Your task to perform on an android device: Go to internet settings Image 0: 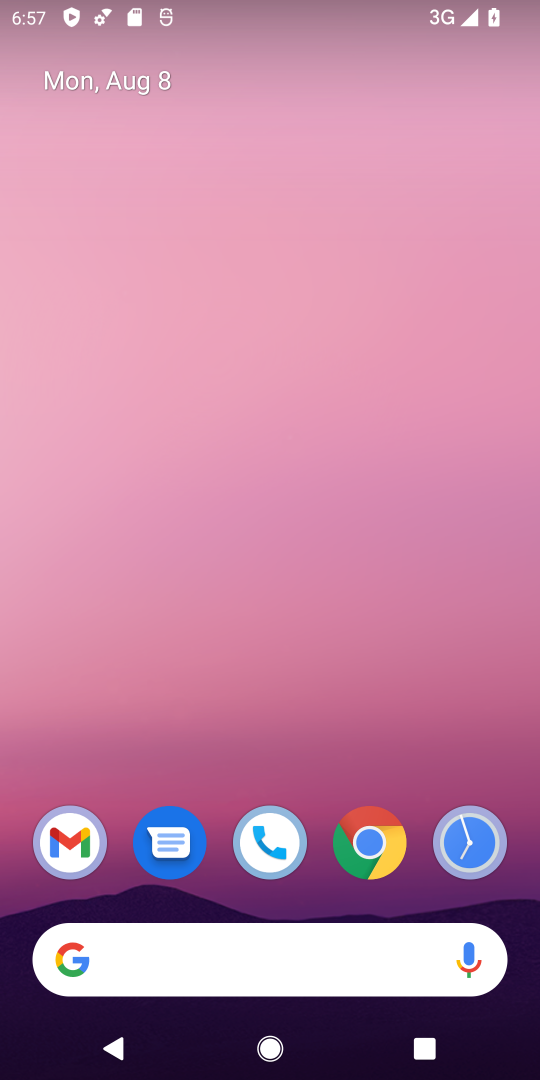
Step 0: drag from (273, 943) to (167, 42)
Your task to perform on an android device: Go to internet settings Image 1: 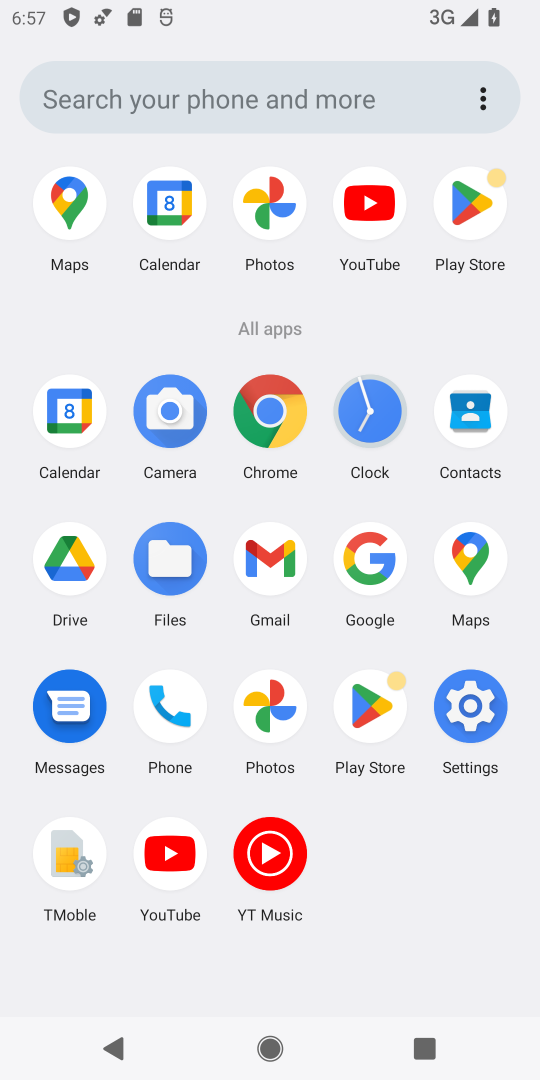
Step 1: click (448, 709)
Your task to perform on an android device: Go to internet settings Image 2: 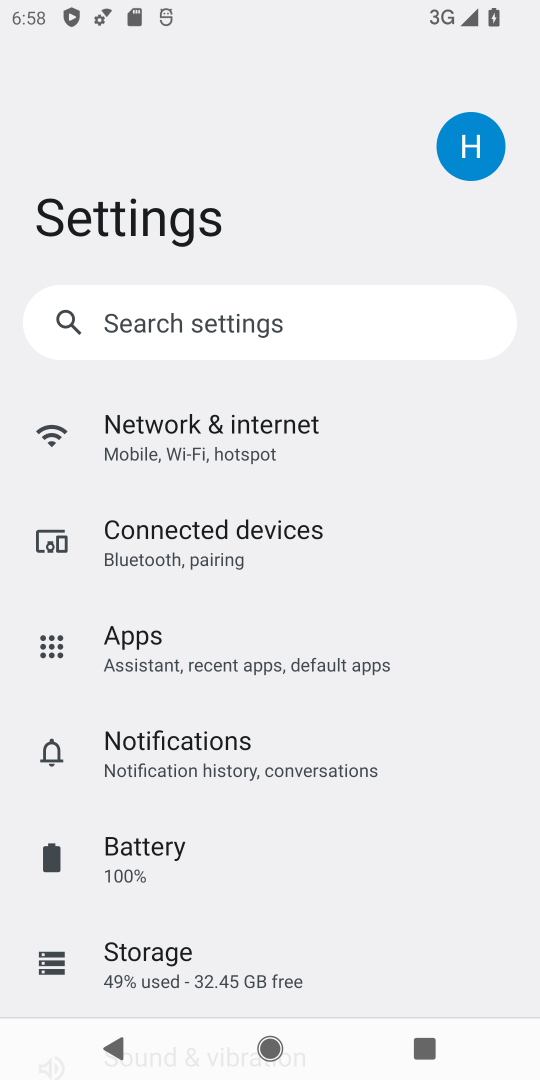
Step 2: click (252, 435)
Your task to perform on an android device: Go to internet settings Image 3: 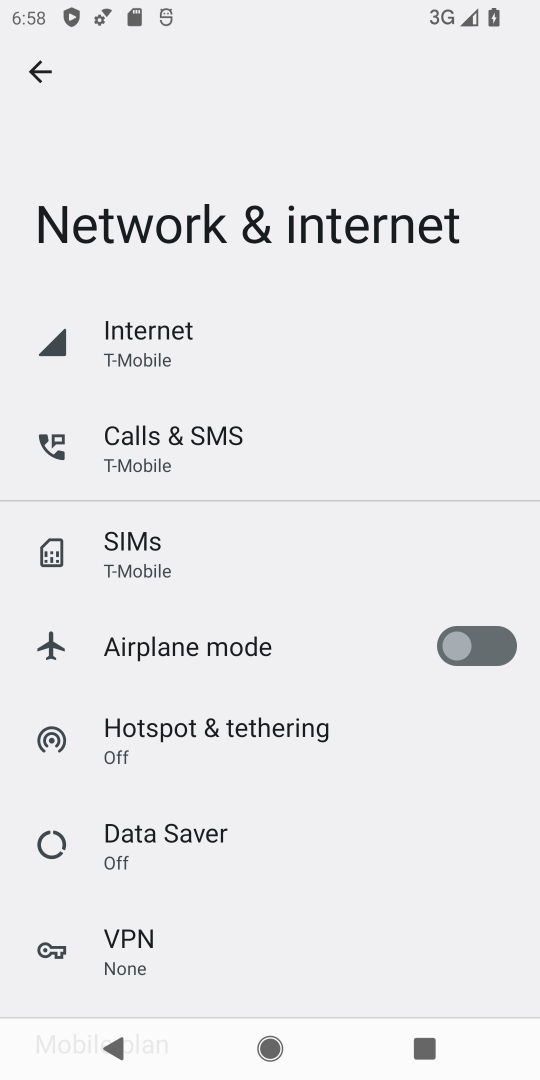
Step 3: click (84, 363)
Your task to perform on an android device: Go to internet settings Image 4: 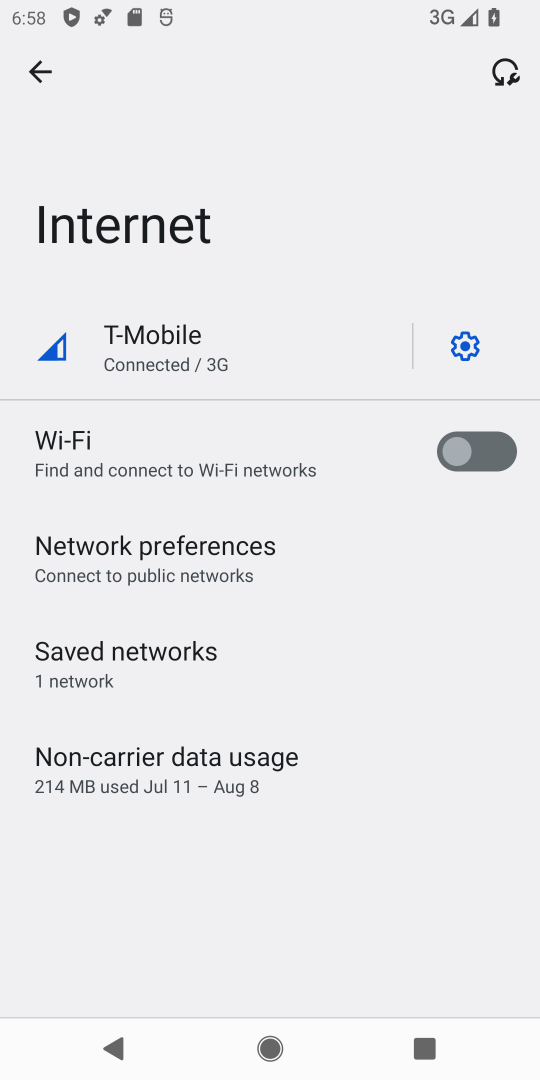
Step 4: task complete